Your task to perform on an android device: set default search engine in the chrome app Image 0: 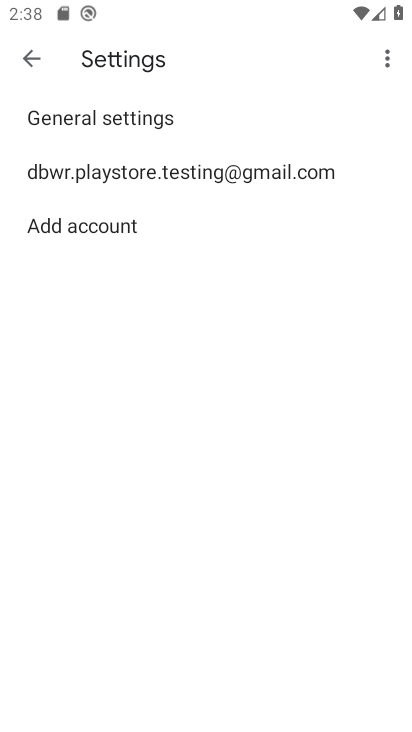
Step 0: press home button
Your task to perform on an android device: set default search engine in the chrome app Image 1: 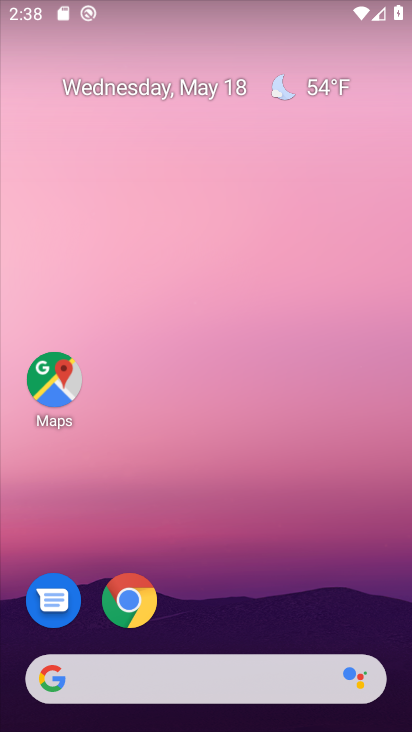
Step 1: click (138, 593)
Your task to perform on an android device: set default search engine in the chrome app Image 2: 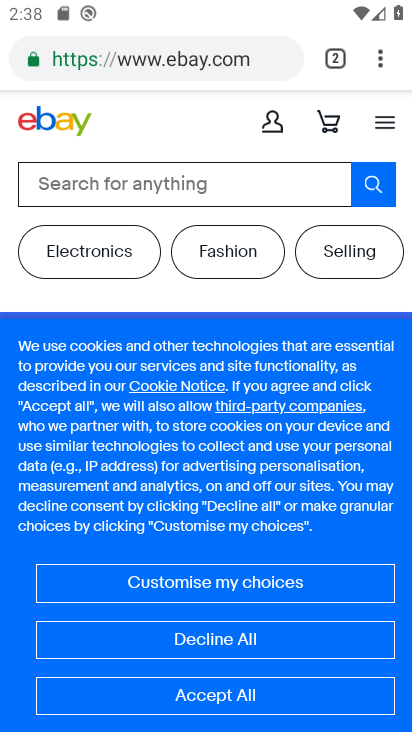
Step 2: click (377, 54)
Your task to perform on an android device: set default search engine in the chrome app Image 3: 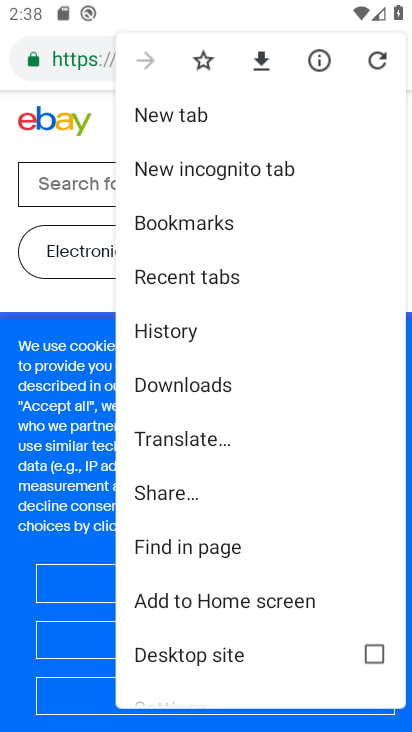
Step 3: drag from (186, 657) to (241, 292)
Your task to perform on an android device: set default search engine in the chrome app Image 4: 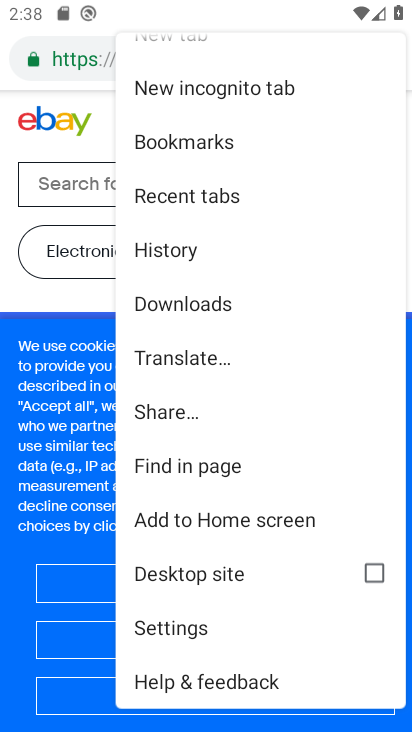
Step 4: click (194, 638)
Your task to perform on an android device: set default search engine in the chrome app Image 5: 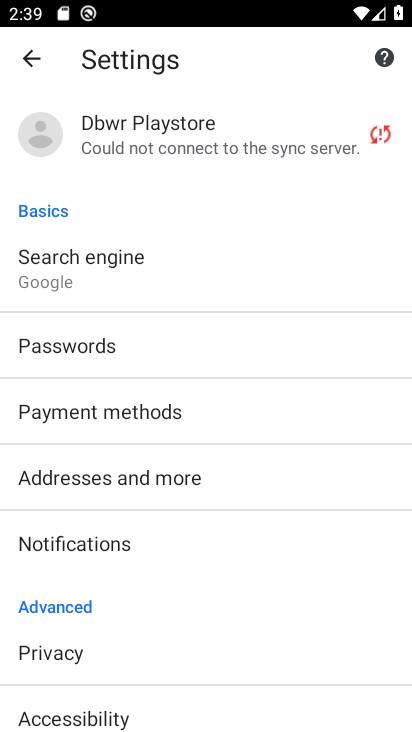
Step 5: click (143, 266)
Your task to perform on an android device: set default search engine in the chrome app Image 6: 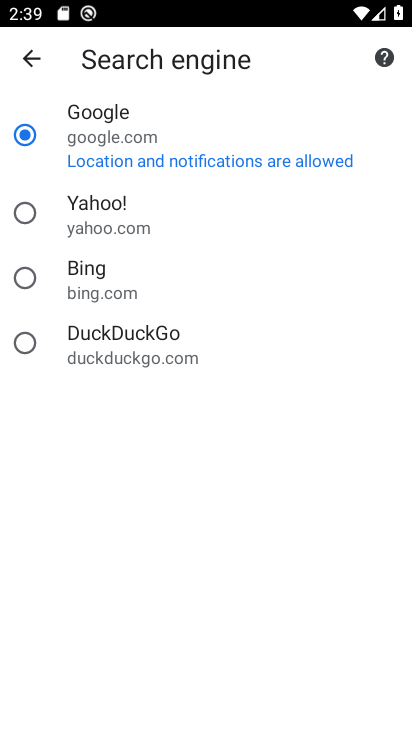
Step 6: click (169, 163)
Your task to perform on an android device: set default search engine in the chrome app Image 7: 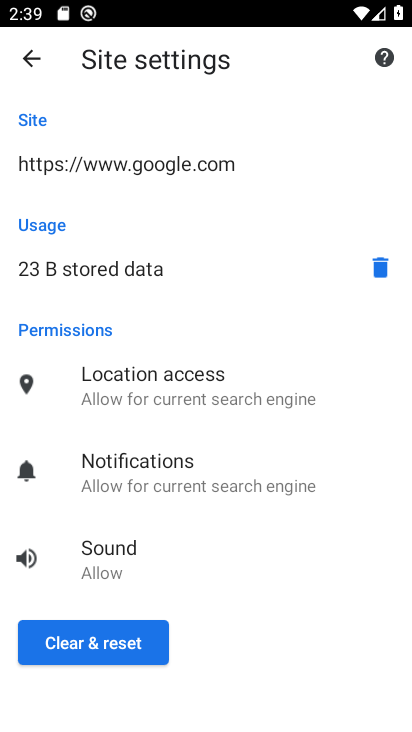
Step 7: click (100, 656)
Your task to perform on an android device: set default search engine in the chrome app Image 8: 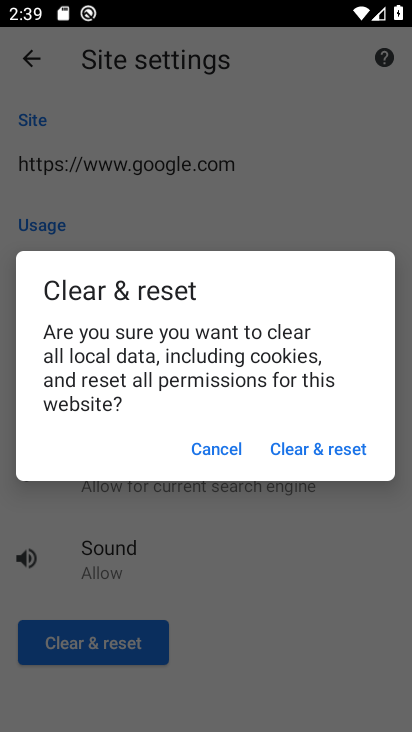
Step 8: click (331, 447)
Your task to perform on an android device: set default search engine in the chrome app Image 9: 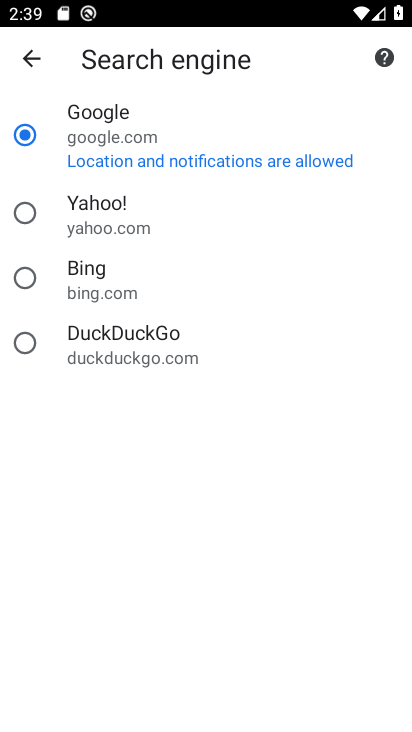
Step 9: task complete